Your task to perform on an android device: Do I have any events today? Image 0: 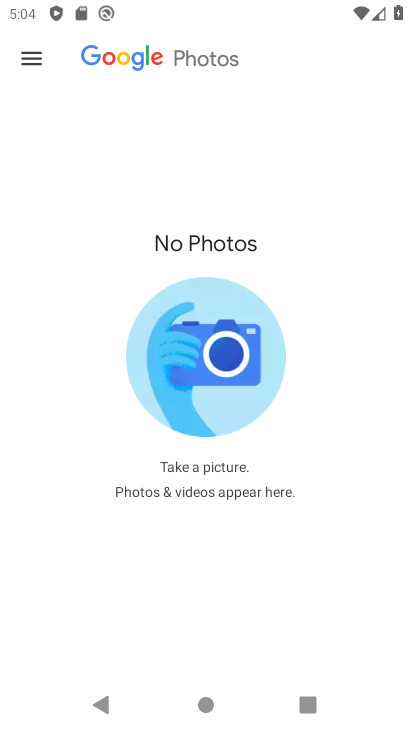
Step 0: press home button
Your task to perform on an android device: Do I have any events today? Image 1: 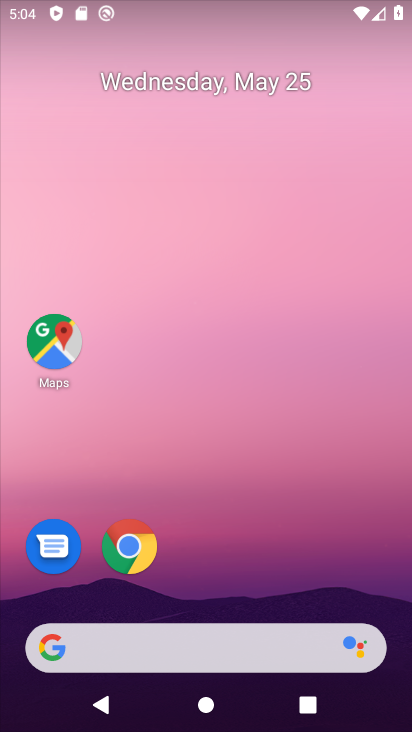
Step 1: drag from (262, 717) to (205, 44)
Your task to perform on an android device: Do I have any events today? Image 2: 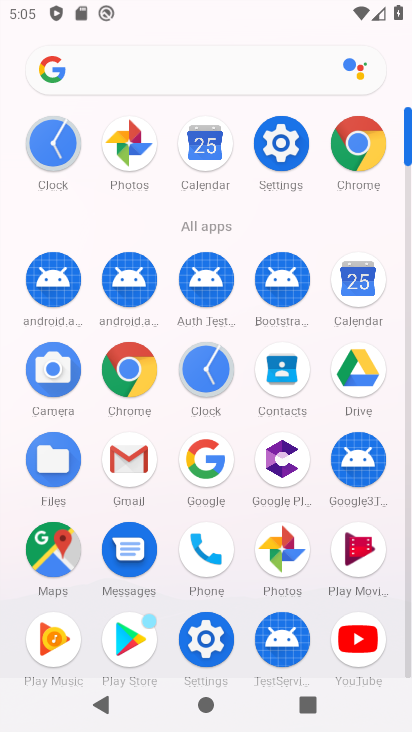
Step 2: click (373, 289)
Your task to perform on an android device: Do I have any events today? Image 3: 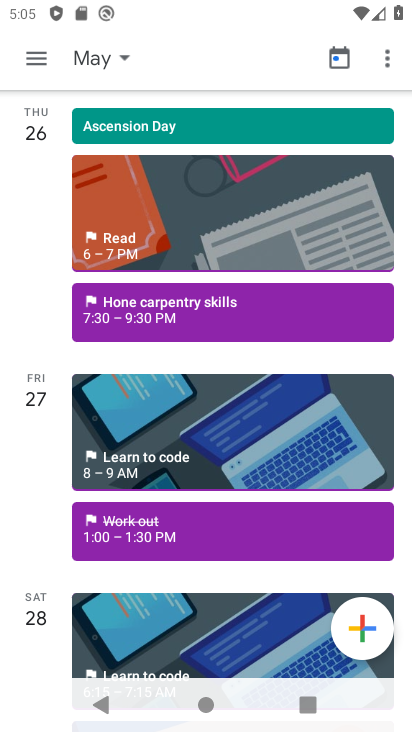
Step 3: task complete